Your task to perform on an android device: Open calendar and show me the second week of next month Image 0: 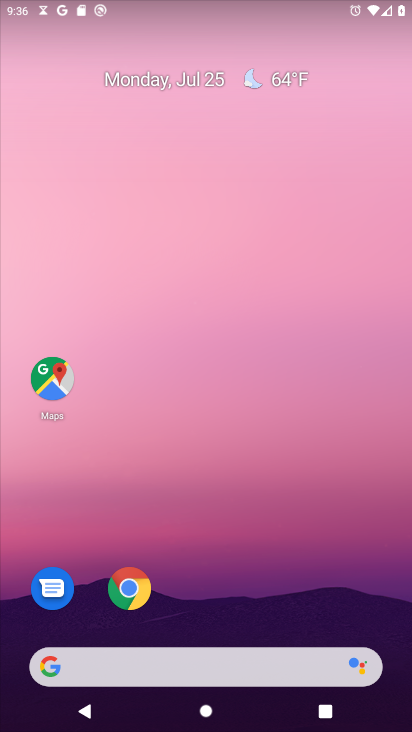
Step 0: drag from (210, 656) to (175, 227)
Your task to perform on an android device: Open calendar and show me the second week of next month Image 1: 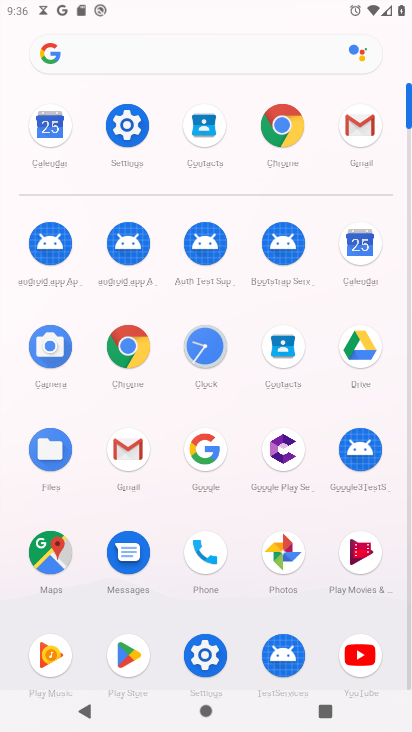
Step 1: click (355, 253)
Your task to perform on an android device: Open calendar and show me the second week of next month Image 2: 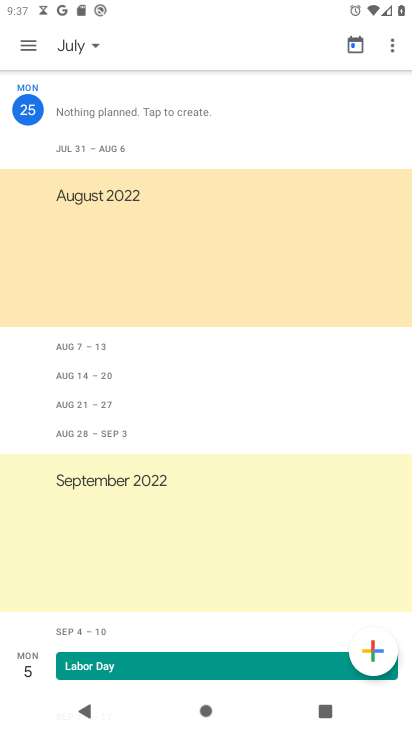
Step 2: click (28, 45)
Your task to perform on an android device: Open calendar and show me the second week of next month Image 3: 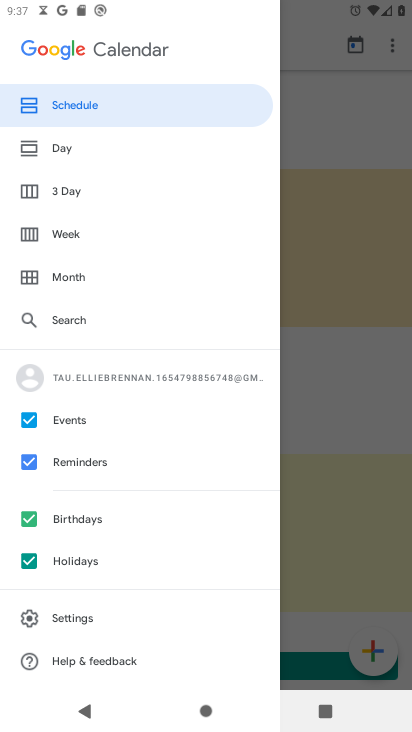
Step 3: click (57, 293)
Your task to perform on an android device: Open calendar and show me the second week of next month Image 4: 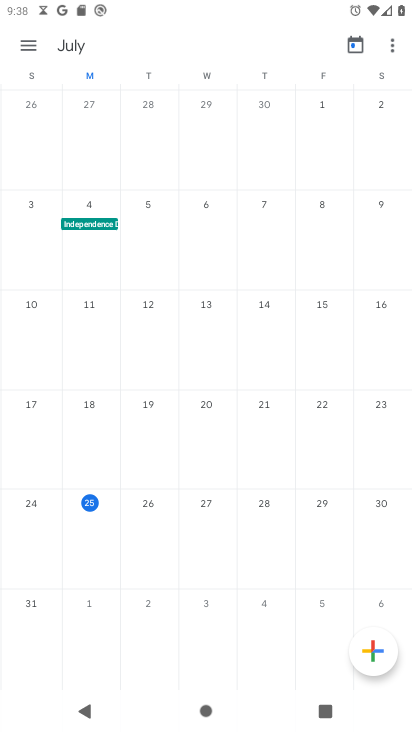
Step 4: task complete